Your task to perform on an android device: change the clock display to show seconds Image 0: 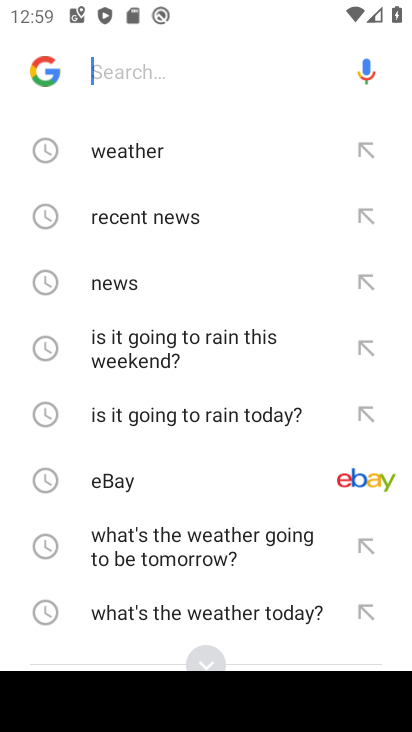
Step 0: press home button
Your task to perform on an android device: change the clock display to show seconds Image 1: 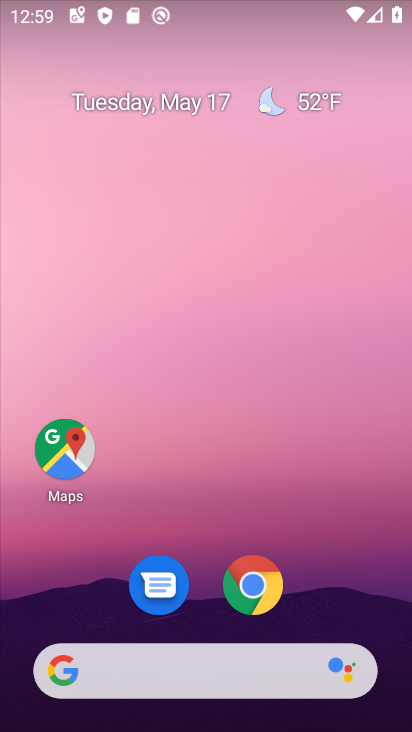
Step 1: drag from (335, 481) to (366, 30)
Your task to perform on an android device: change the clock display to show seconds Image 2: 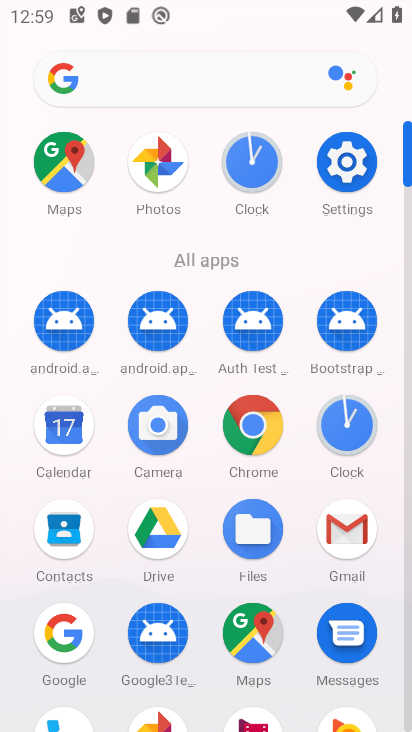
Step 2: click (257, 167)
Your task to perform on an android device: change the clock display to show seconds Image 3: 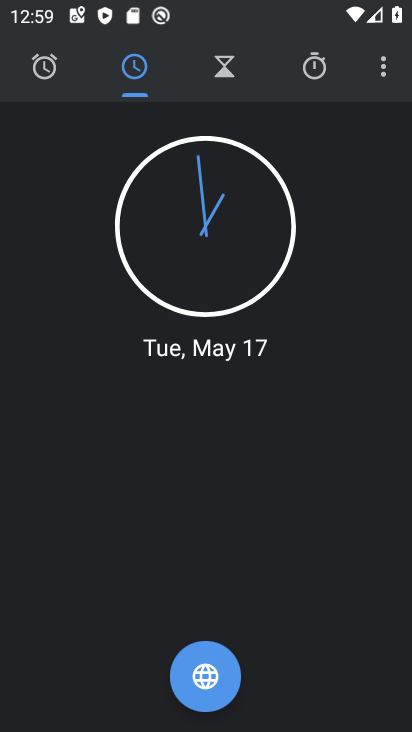
Step 3: click (375, 65)
Your task to perform on an android device: change the clock display to show seconds Image 4: 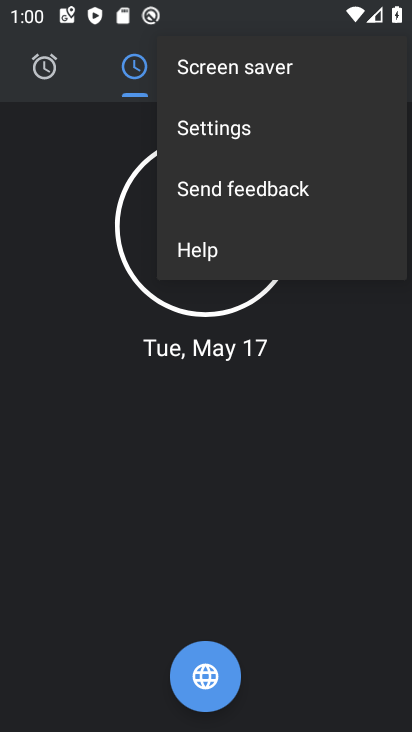
Step 4: click (288, 138)
Your task to perform on an android device: change the clock display to show seconds Image 5: 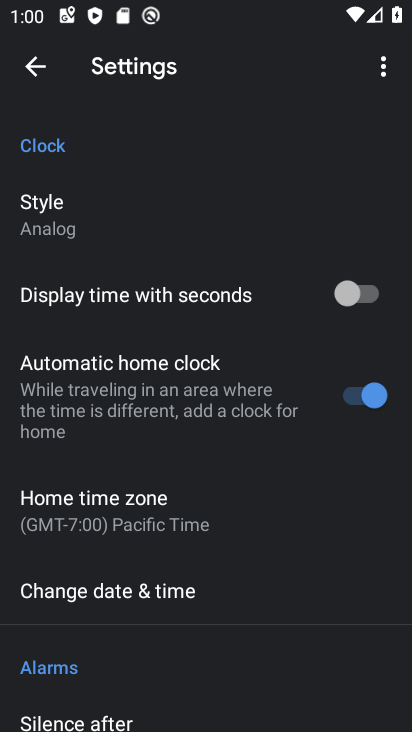
Step 5: click (355, 294)
Your task to perform on an android device: change the clock display to show seconds Image 6: 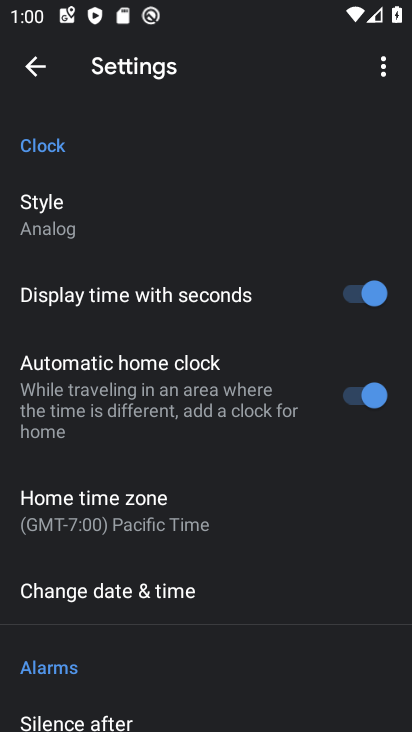
Step 6: task complete